Your task to perform on an android device: What's on my calendar tomorrow? Image 0: 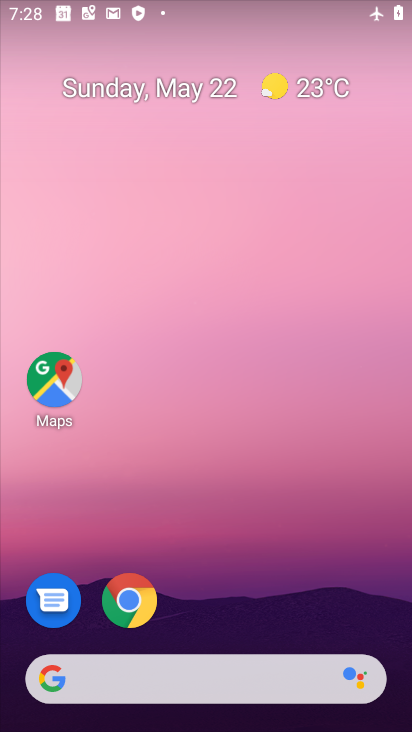
Step 0: drag from (338, 607) to (265, 101)
Your task to perform on an android device: What's on my calendar tomorrow? Image 1: 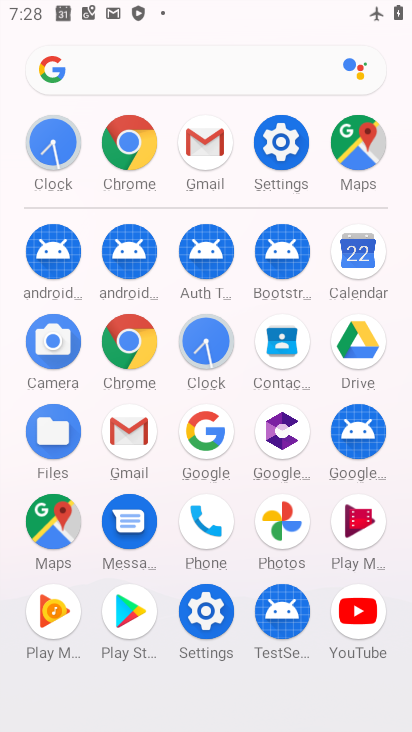
Step 1: click (339, 255)
Your task to perform on an android device: What's on my calendar tomorrow? Image 2: 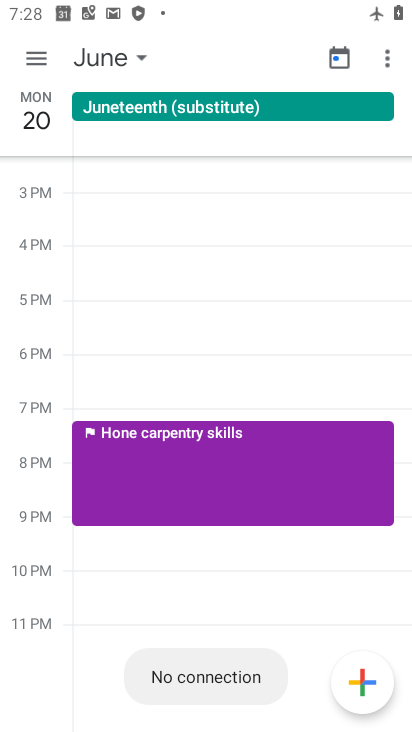
Step 2: click (104, 57)
Your task to perform on an android device: What's on my calendar tomorrow? Image 3: 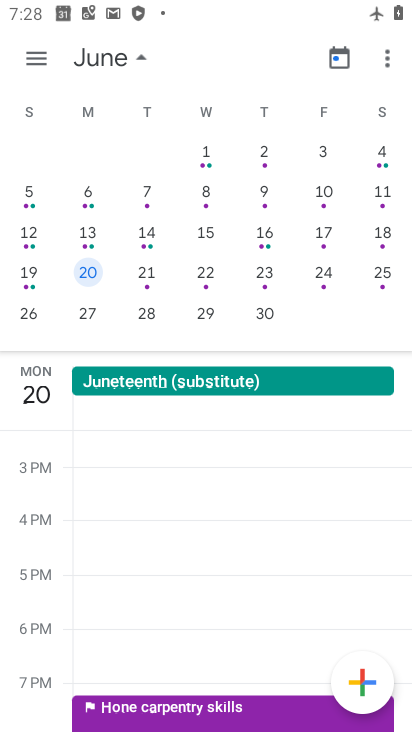
Step 3: drag from (70, 273) to (324, 136)
Your task to perform on an android device: What's on my calendar tomorrow? Image 4: 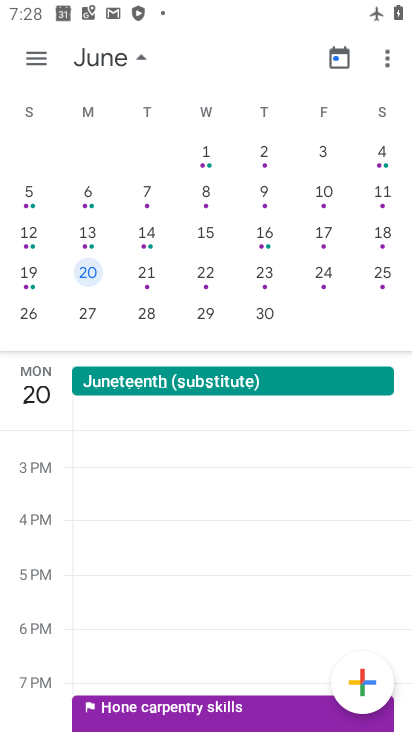
Step 4: drag from (96, 243) to (366, 136)
Your task to perform on an android device: What's on my calendar tomorrow? Image 5: 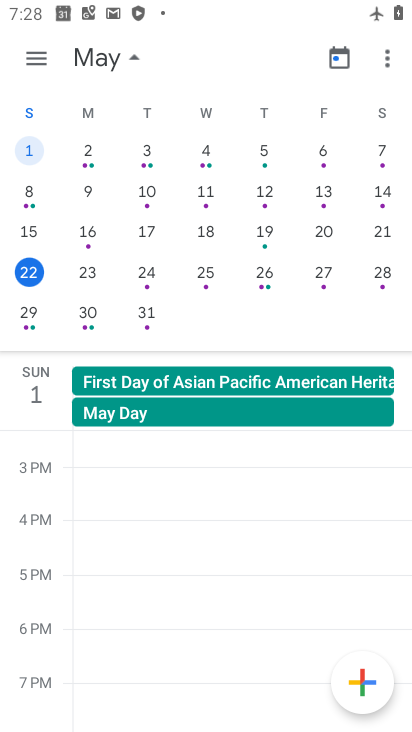
Step 5: click (150, 266)
Your task to perform on an android device: What's on my calendar tomorrow? Image 6: 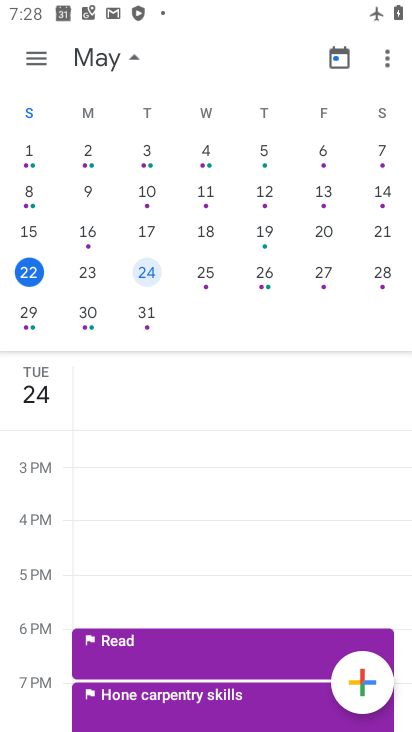
Step 6: task complete